Your task to perform on an android device: Search for "bose soundsport free" on amazon, select the first entry, add it to the cart, then select checkout. Image 0: 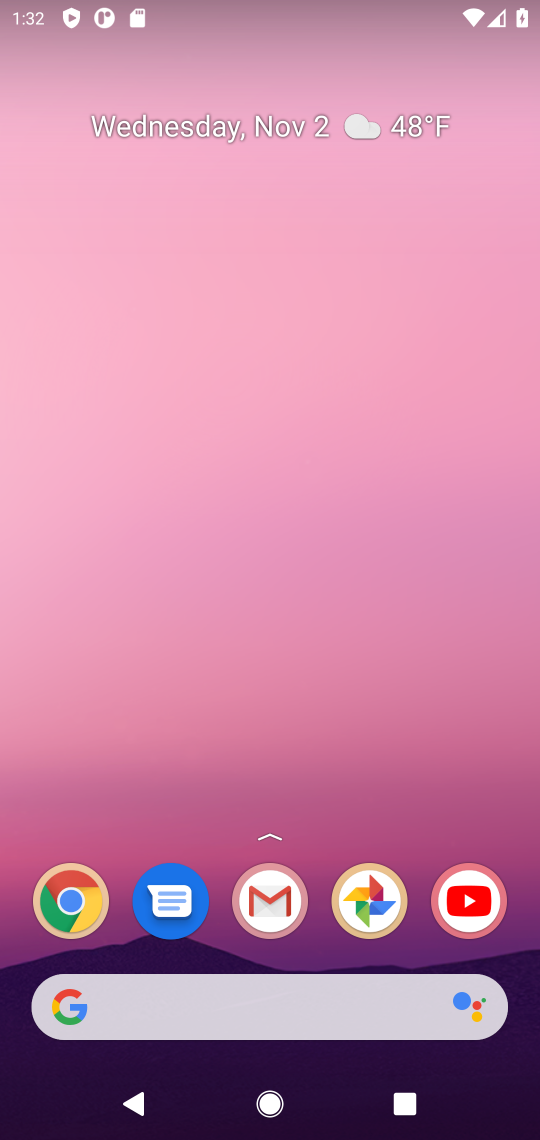
Step 0: drag from (210, 941) to (235, 273)
Your task to perform on an android device: Search for "bose soundsport free" on amazon, select the first entry, add it to the cart, then select checkout. Image 1: 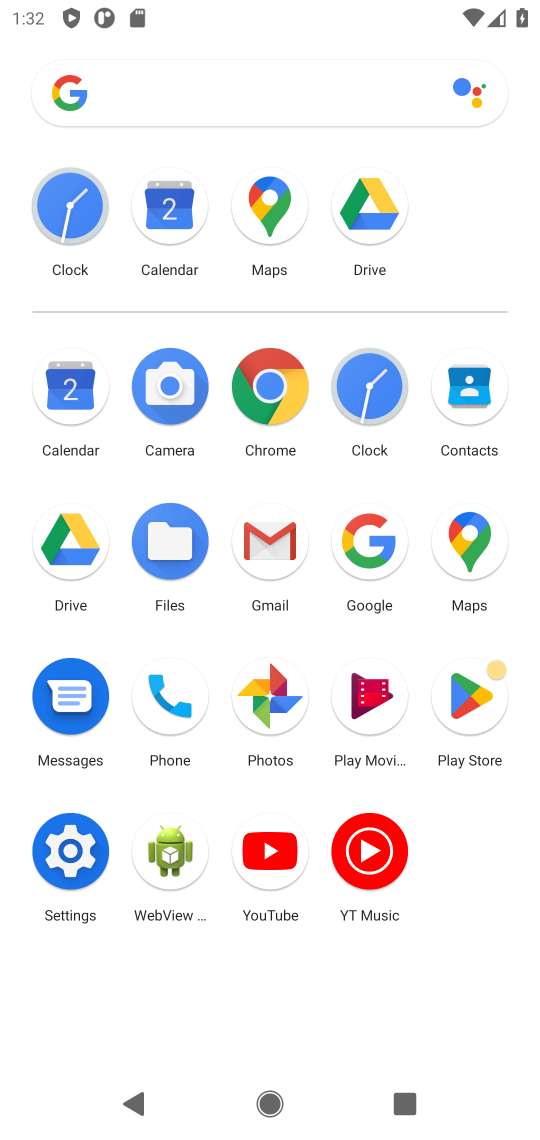
Step 1: click (277, 389)
Your task to perform on an android device: Search for "bose soundsport free" on amazon, select the first entry, add it to the cart, then select checkout. Image 2: 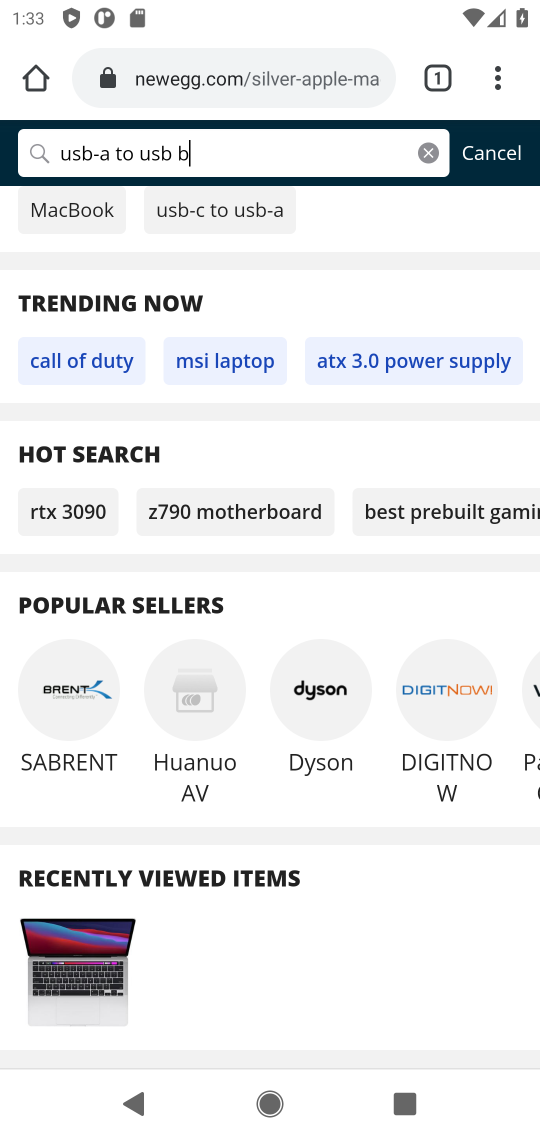
Step 2: click (260, 71)
Your task to perform on an android device: Search for "bose soundsport free" on amazon, select the first entry, add it to the cart, then select checkout. Image 3: 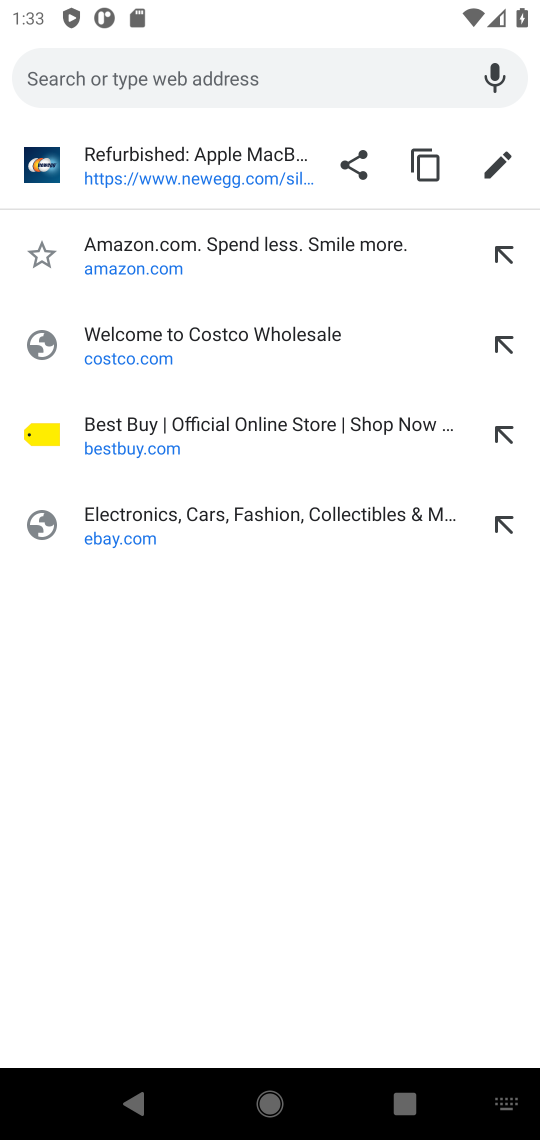
Step 3: type "amazon.com"
Your task to perform on an android device: Search for "bose soundsport free" on amazon, select the first entry, add it to the cart, then select checkout. Image 4: 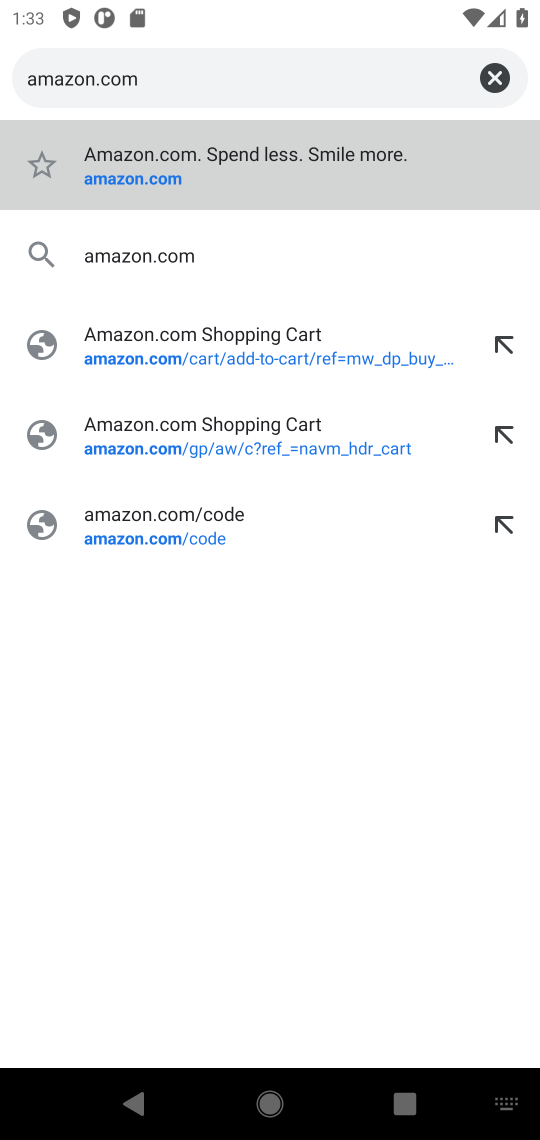
Step 4: press enter
Your task to perform on an android device: Search for "bose soundsport free" on amazon, select the first entry, add it to the cart, then select checkout. Image 5: 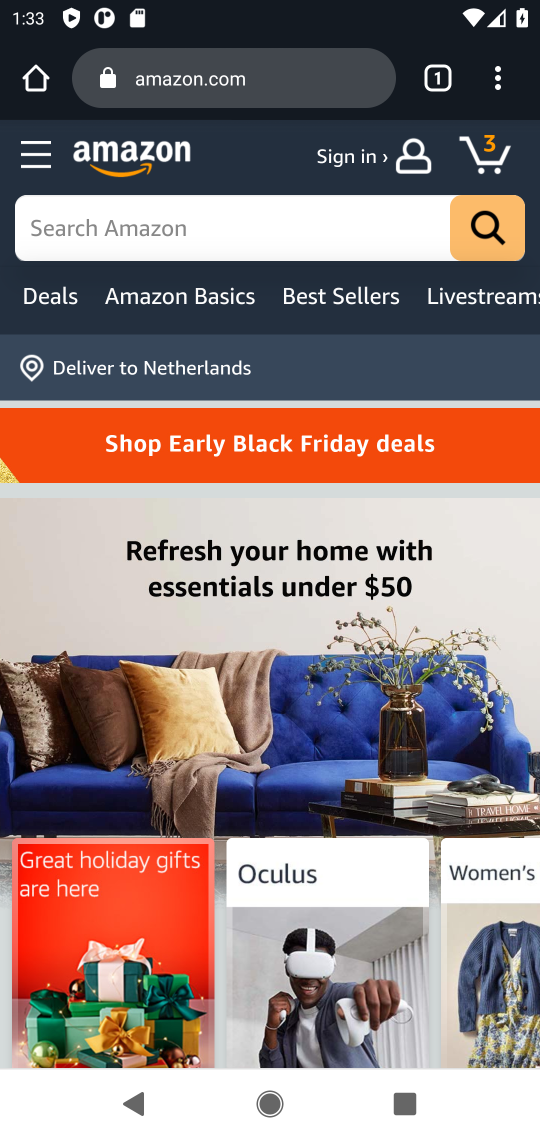
Step 5: click (280, 233)
Your task to perform on an android device: Search for "bose soundsport free" on amazon, select the first entry, add it to the cart, then select checkout. Image 6: 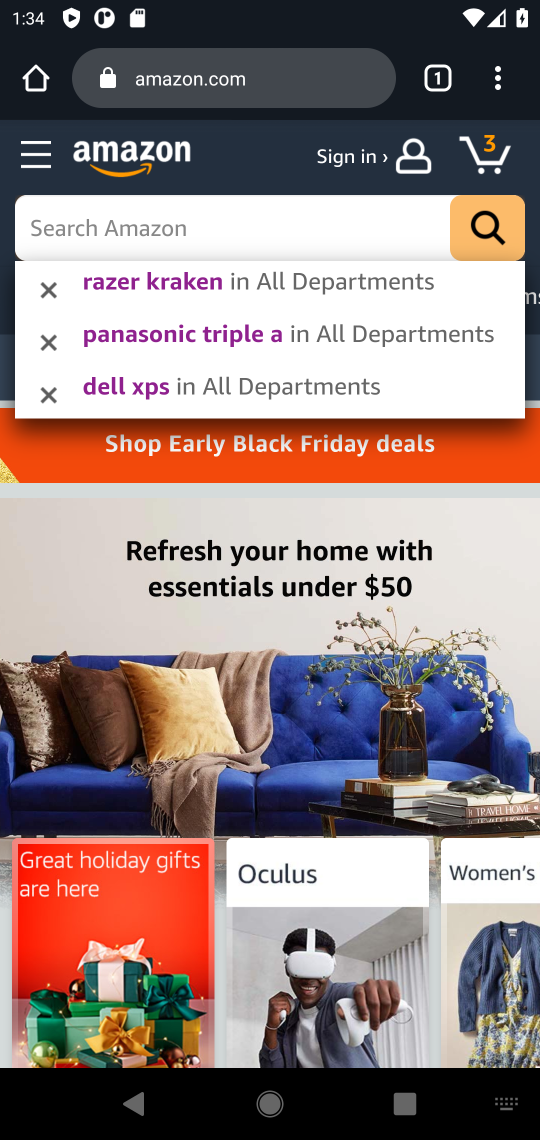
Step 6: type "bose soundsport free"
Your task to perform on an android device: Search for "bose soundsport free" on amazon, select the first entry, add it to the cart, then select checkout. Image 7: 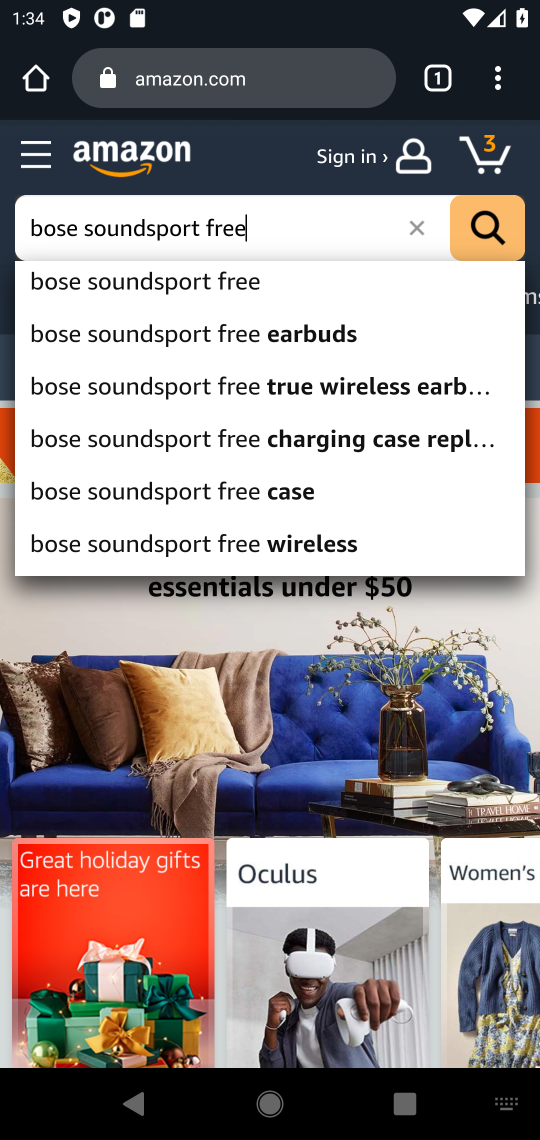
Step 7: press enter
Your task to perform on an android device: Search for "bose soundsport free" on amazon, select the first entry, add it to the cart, then select checkout. Image 8: 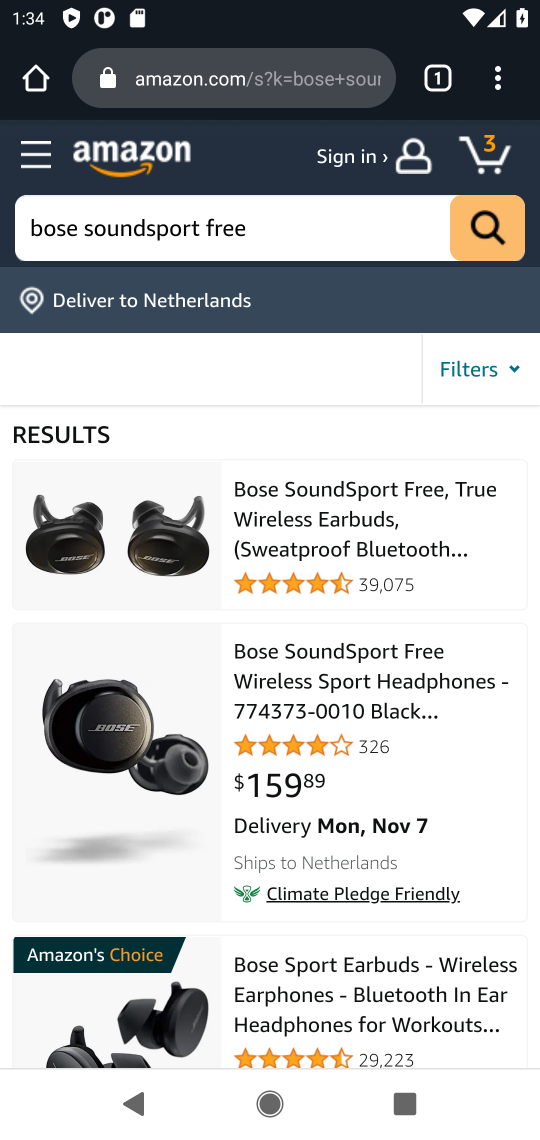
Step 8: drag from (267, 1019) to (301, 779)
Your task to perform on an android device: Search for "bose soundsport free" on amazon, select the first entry, add it to the cart, then select checkout. Image 9: 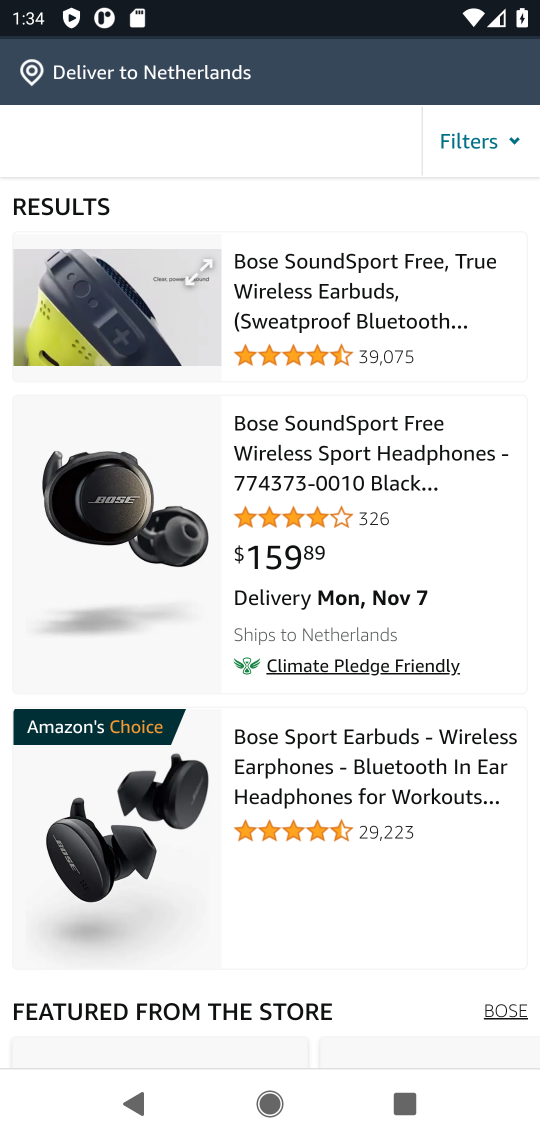
Step 9: click (337, 307)
Your task to perform on an android device: Search for "bose soundsport free" on amazon, select the first entry, add it to the cart, then select checkout. Image 10: 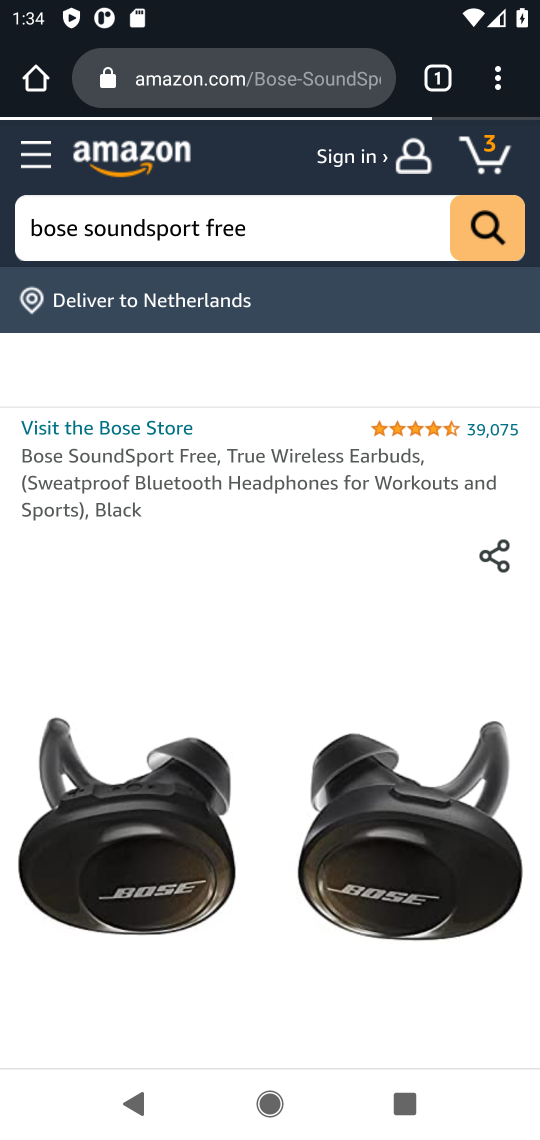
Step 10: drag from (312, 884) to (269, 246)
Your task to perform on an android device: Search for "bose soundsport free" on amazon, select the first entry, add it to the cart, then select checkout. Image 11: 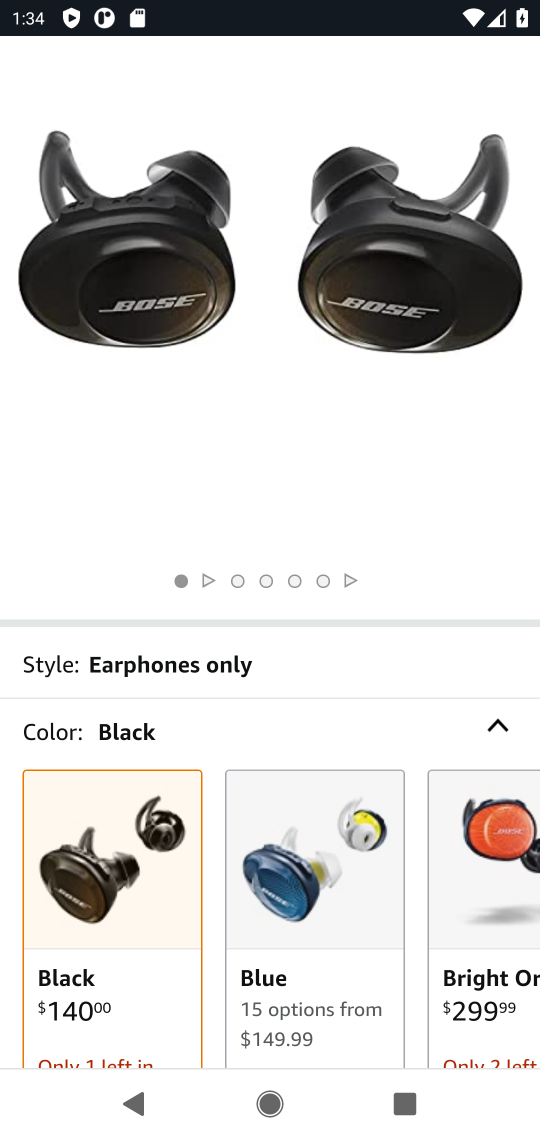
Step 11: drag from (346, 893) to (359, 233)
Your task to perform on an android device: Search for "bose soundsport free" on amazon, select the first entry, add it to the cart, then select checkout. Image 12: 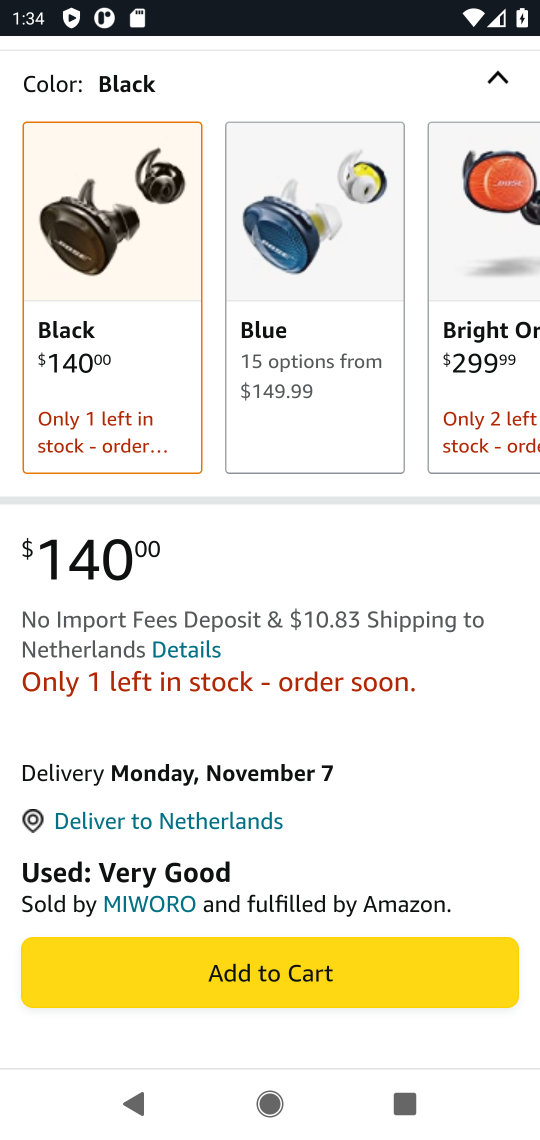
Step 12: click (387, 987)
Your task to perform on an android device: Search for "bose soundsport free" on amazon, select the first entry, add it to the cart, then select checkout. Image 13: 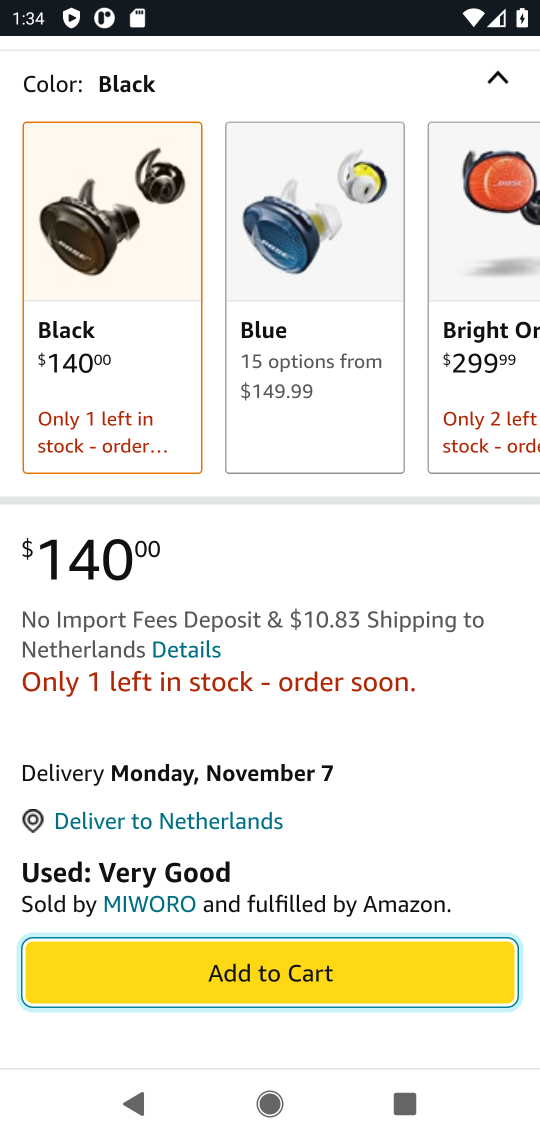
Step 13: click (261, 965)
Your task to perform on an android device: Search for "bose soundsport free" on amazon, select the first entry, add it to the cart, then select checkout. Image 14: 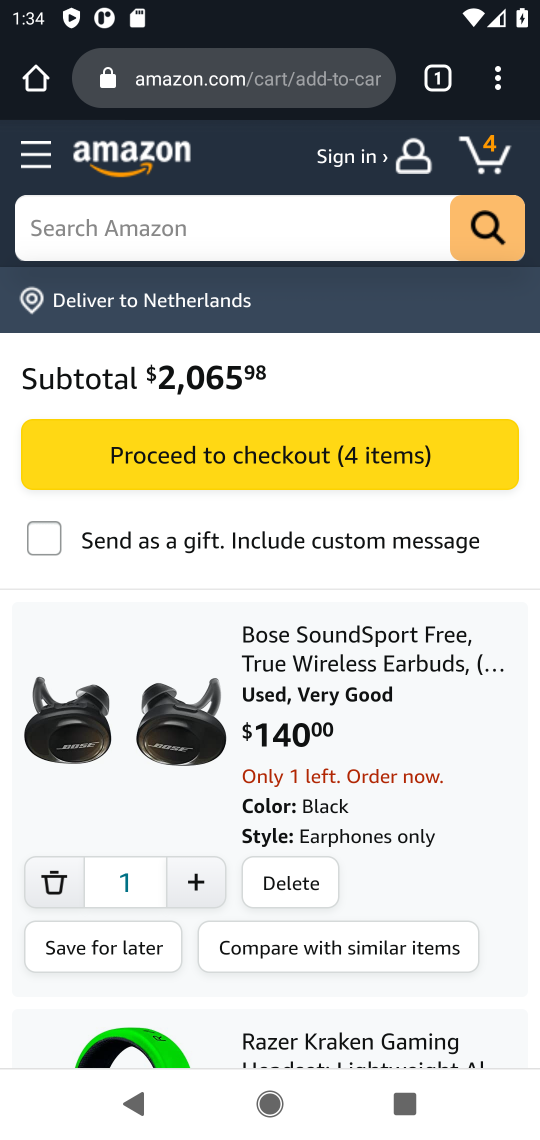
Step 14: click (323, 452)
Your task to perform on an android device: Search for "bose soundsport free" on amazon, select the first entry, add it to the cart, then select checkout. Image 15: 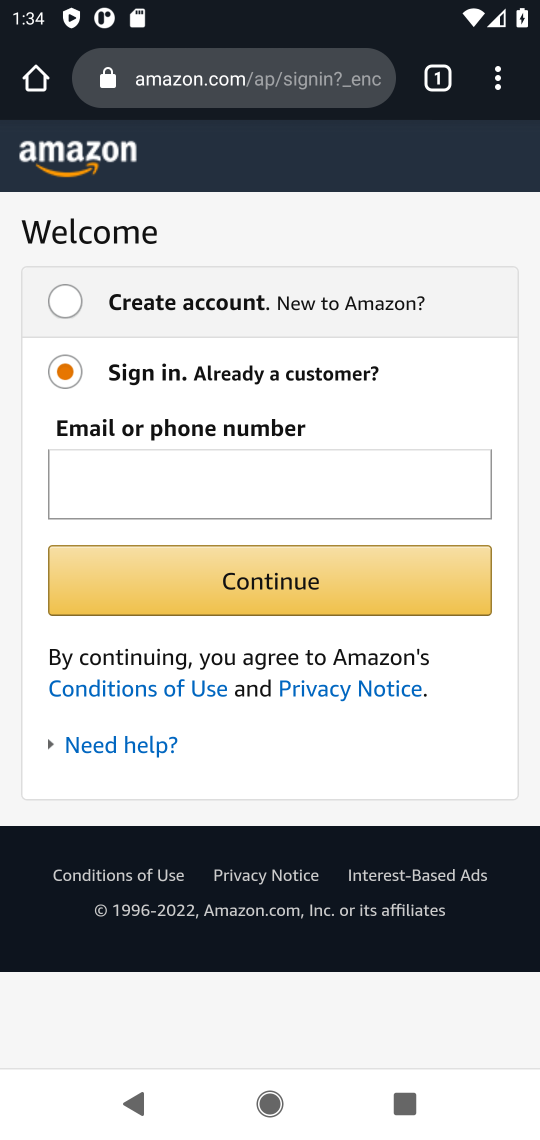
Step 15: task complete